Your task to perform on an android device: Open accessibility settings Image 0: 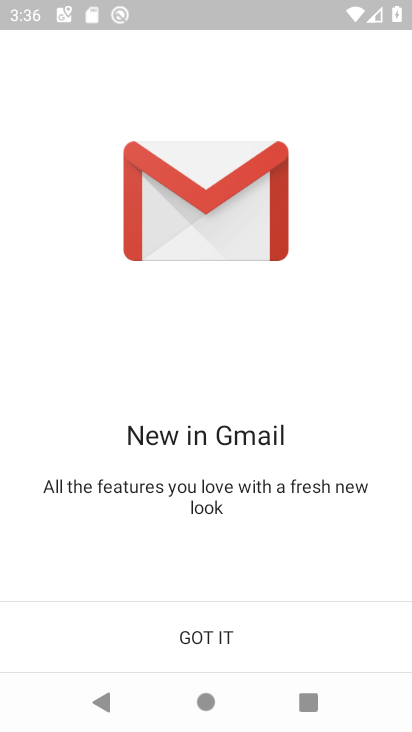
Step 0: press home button
Your task to perform on an android device: Open accessibility settings Image 1: 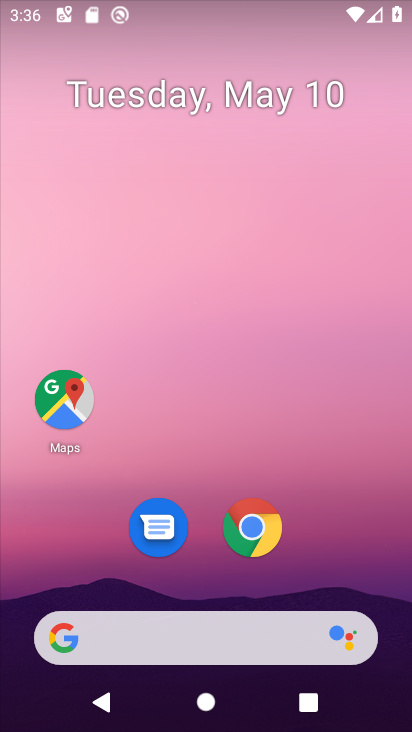
Step 1: drag from (400, 660) to (357, 293)
Your task to perform on an android device: Open accessibility settings Image 2: 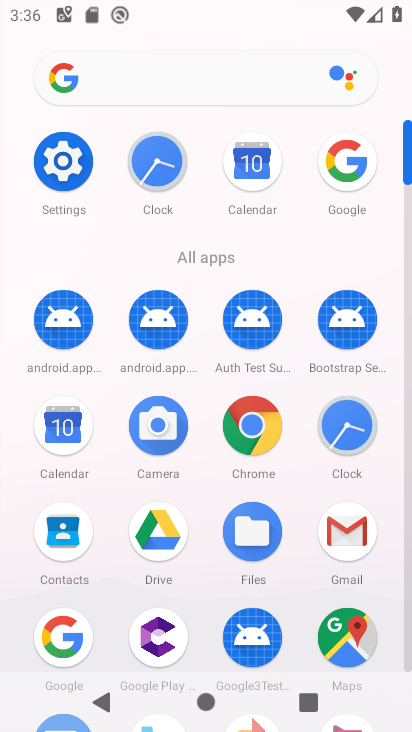
Step 2: click (60, 159)
Your task to perform on an android device: Open accessibility settings Image 3: 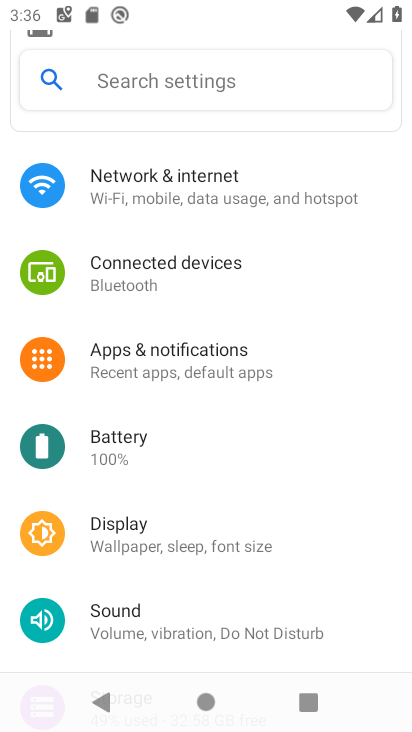
Step 3: click (334, 363)
Your task to perform on an android device: Open accessibility settings Image 4: 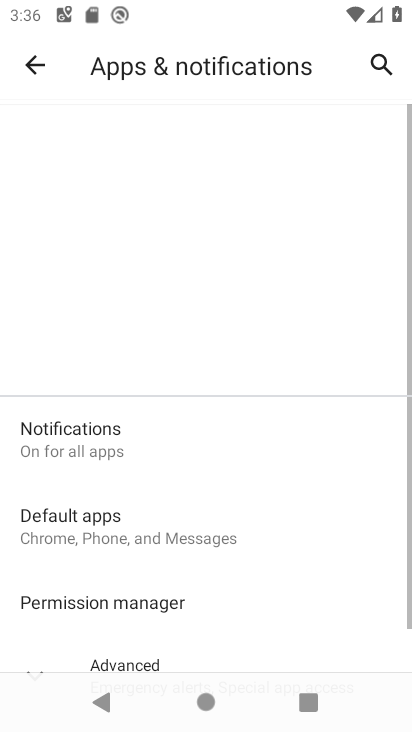
Step 4: drag from (382, 646) to (391, 375)
Your task to perform on an android device: Open accessibility settings Image 5: 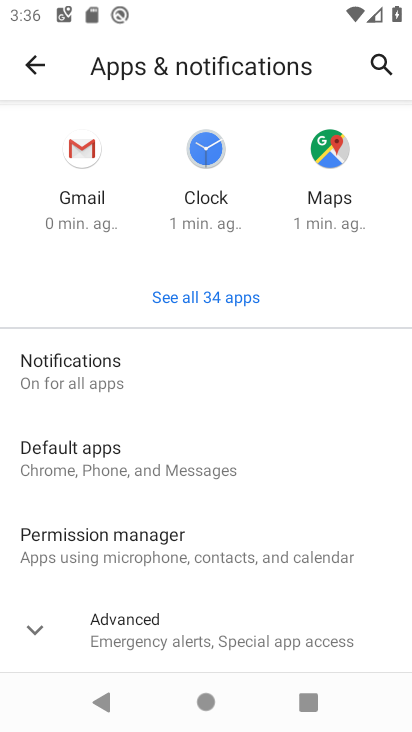
Step 5: click (32, 58)
Your task to perform on an android device: Open accessibility settings Image 6: 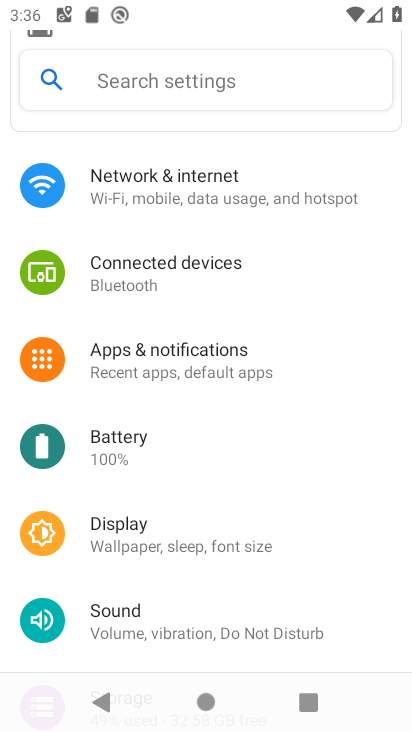
Step 6: drag from (394, 656) to (377, 303)
Your task to perform on an android device: Open accessibility settings Image 7: 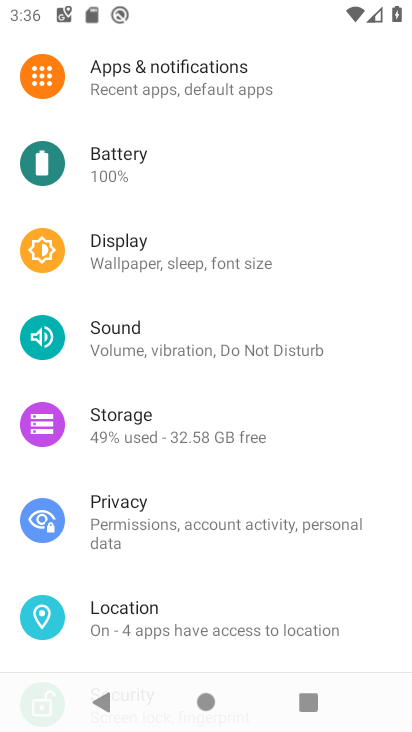
Step 7: drag from (388, 661) to (391, 435)
Your task to perform on an android device: Open accessibility settings Image 8: 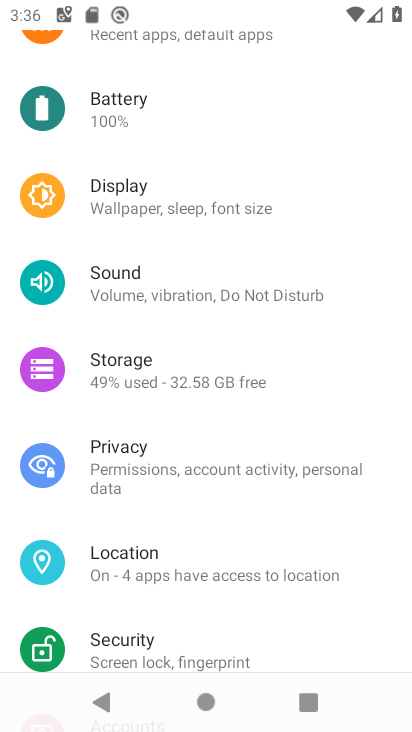
Step 8: drag from (390, 634) to (372, 416)
Your task to perform on an android device: Open accessibility settings Image 9: 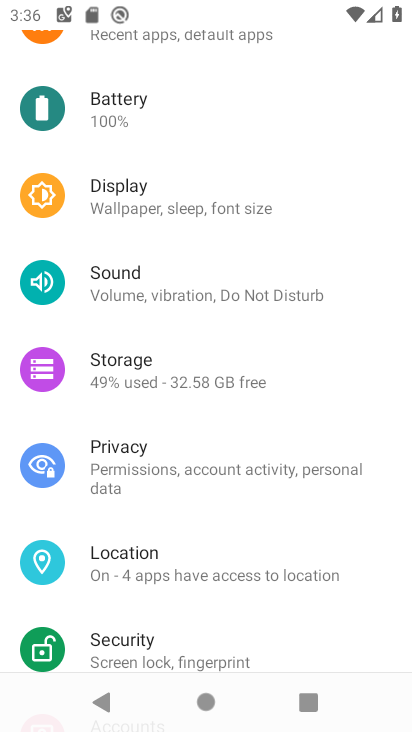
Step 9: drag from (378, 650) to (369, 243)
Your task to perform on an android device: Open accessibility settings Image 10: 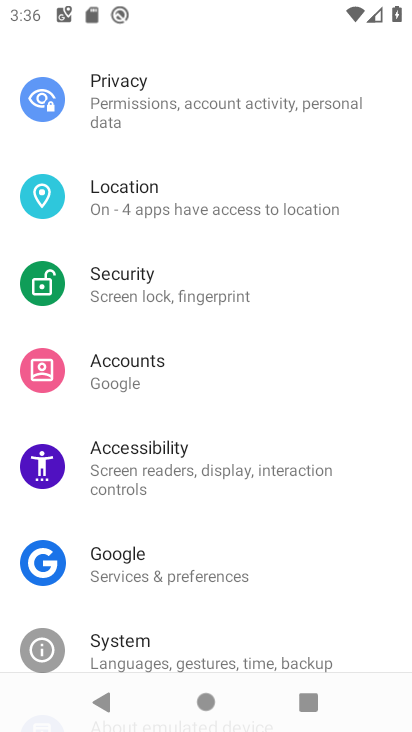
Step 10: drag from (367, 532) to (358, 426)
Your task to perform on an android device: Open accessibility settings Image 11: 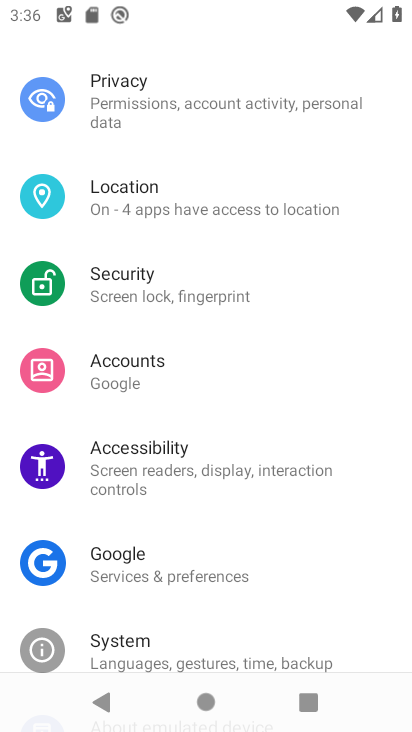
Step 11: click (115, 468)
Your task to perform on an android device: Open accessibility settings Image 12: 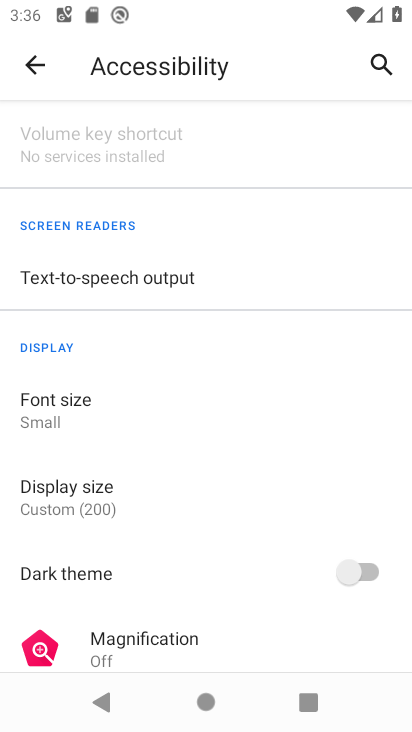
Step 12: task complete